Your task to perform on an android device: Show me popular games on the Play Store Image 0: 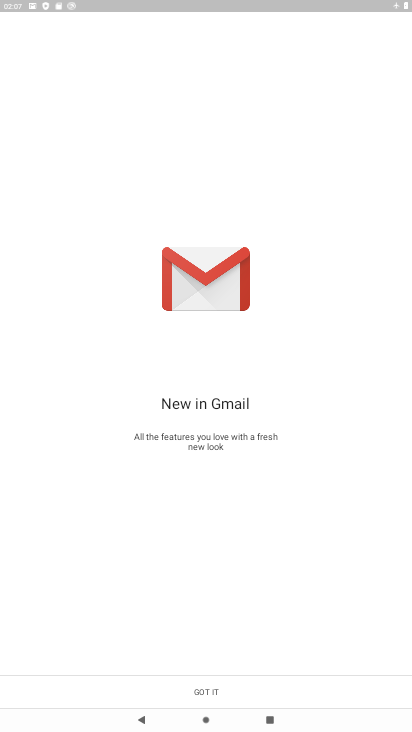
Step 0: press home button
Your task to perform on an android device: Show me popular games on the Play Store Image 1: 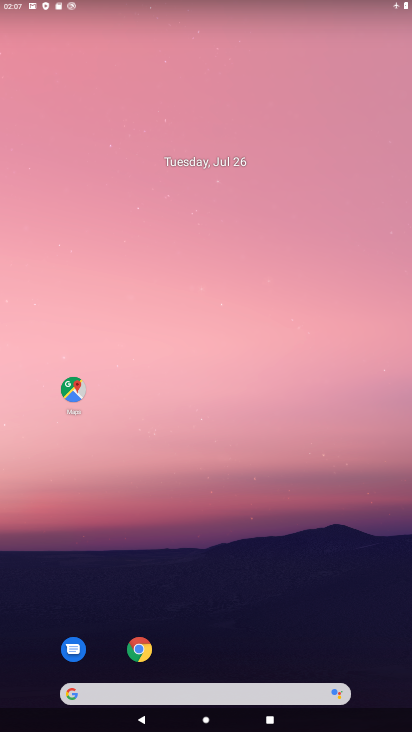
Step 1: drag from (191, 688) to (272, 40)
Your task to perform on an android device: Show me popular games on the Play Store Image 2: 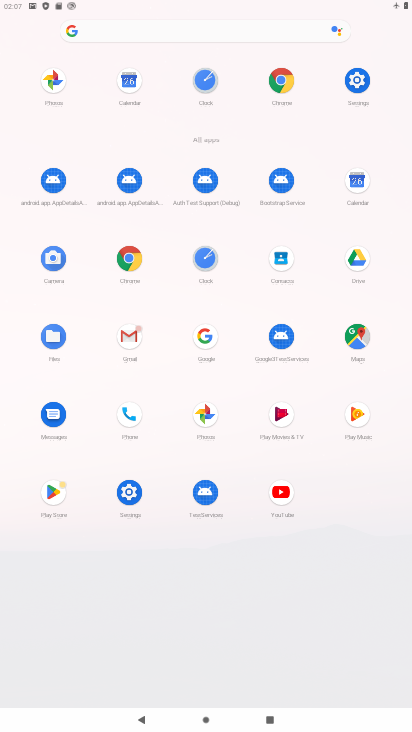
Step 2: click (53, 493)
Your task to perform on an android device: Show me popular games on the Play Store Image 3: 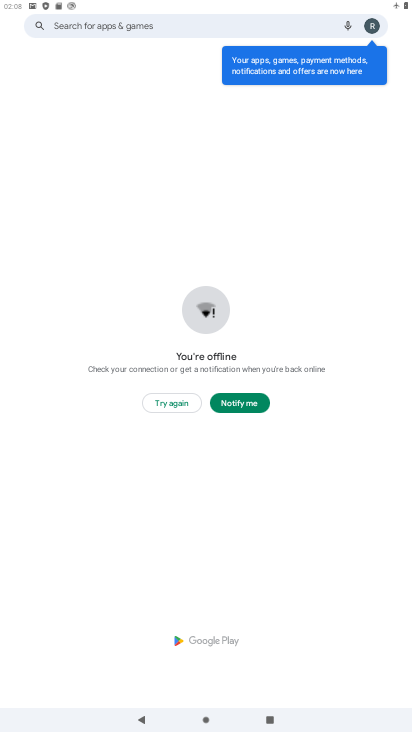
Step 3: click (262, 38)
Your task to perform on an android device: Show me popular games on the Play Store Image 4: 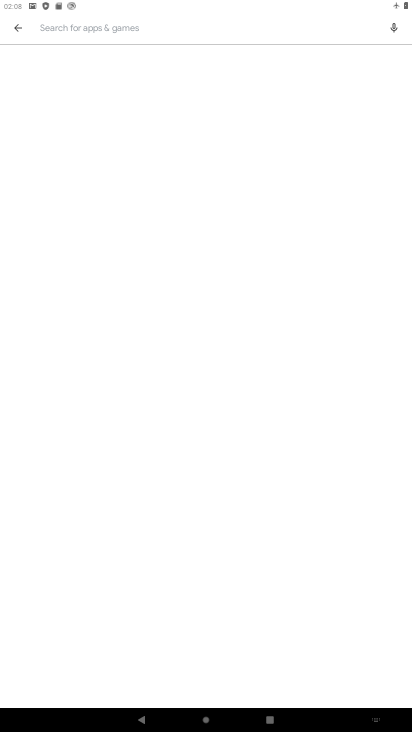
Step 4: type "popular games"
Your task to perform on an android device: Show me popular games on the Play Store Image 5: 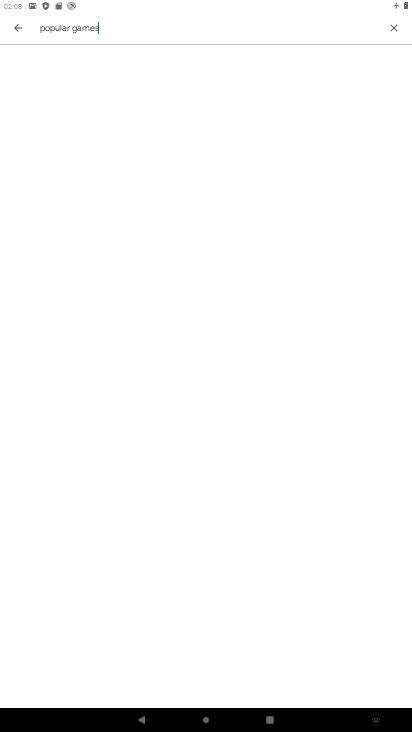
Step 5: task complete